Your task to perform on an android device: allow notifications from all sites in the chrome app Image 0: 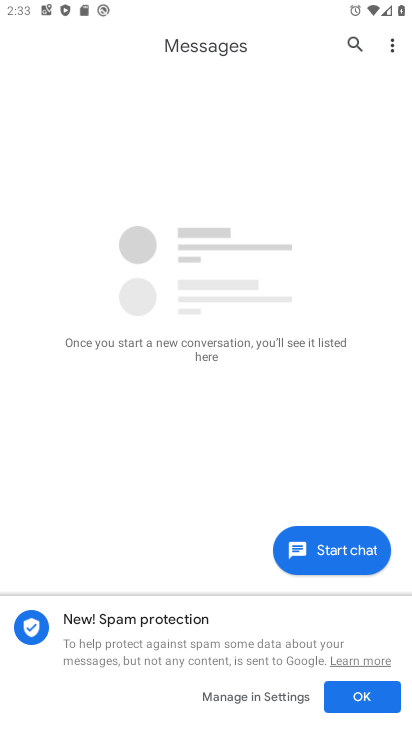
Step 0: press home button
Your task to perform on an android device: allow notifications from all sites in the chrome app Image 1: 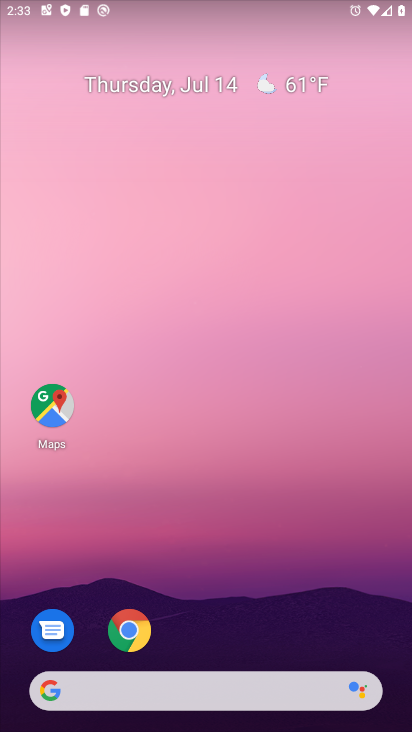
Step 1: click (139, 646)
Your task to perform on an android device: allow notifications from all sites in the chrome app Image 2: 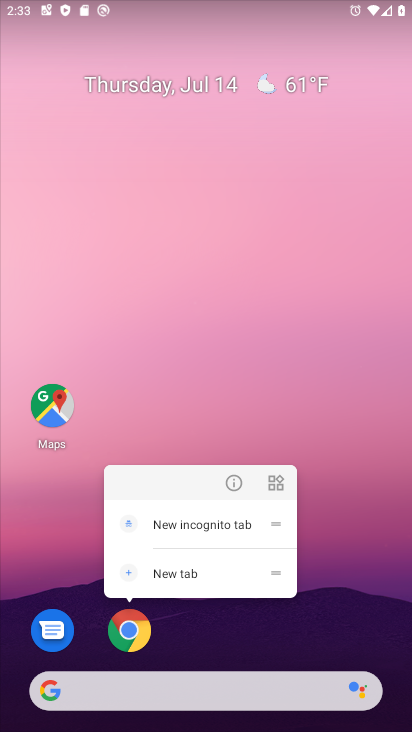
Step 2: click (129, 629)
Your task to perform on an android device: allow notifications from all sites in the chrome app Image 3: 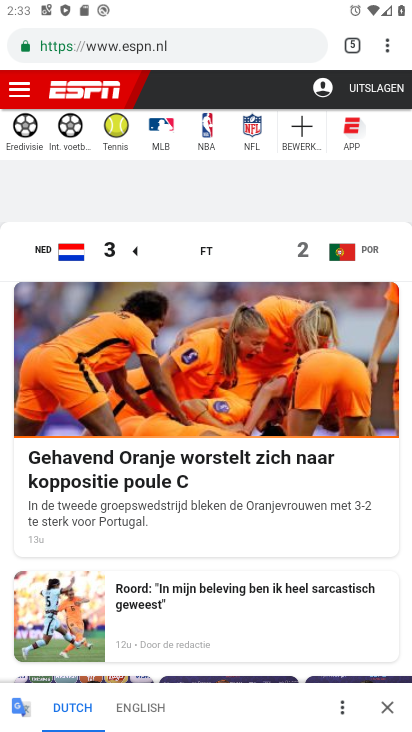
Step 3: drag from (384, 49) to (252, 597)
Your task to perform on an android device: allow notifications from all sites in the chrome app Image 4: 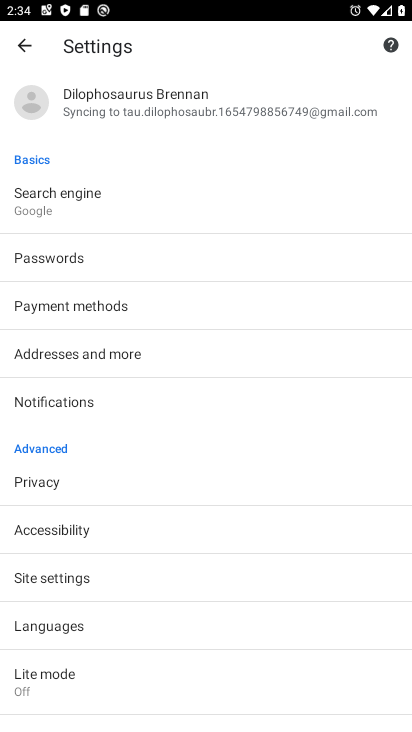
Step 4: click (79, 570)
Your task to perform on an android device: allow notifications from all sites in the chrome app Image 5: 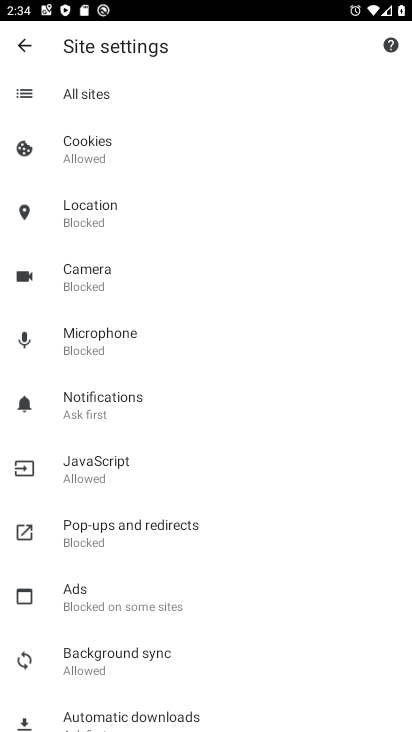
Step 5: click (116, 399)
Your task to perform on an android device: allow notifications from all sites in the chrome app Image 6: 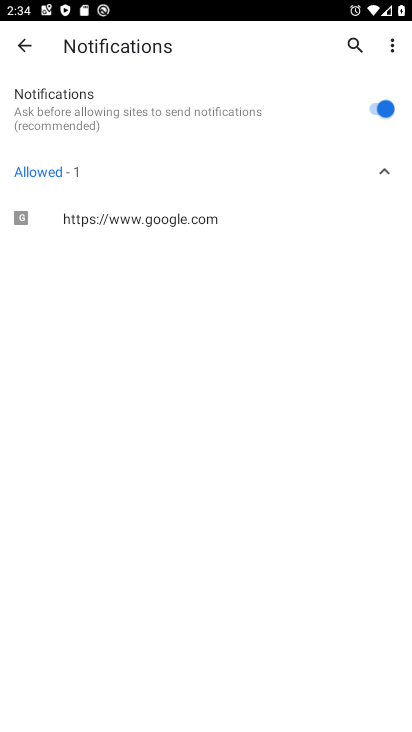
Step 6: task complete